Your task to perform on an android device: Open Google Image 0: 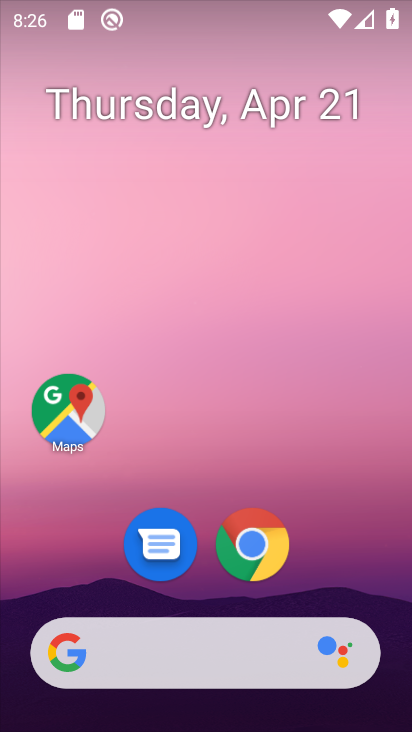
Step 0: drag from (217, 638) to (217, 153)
Your task to perform on an android device: Open Google Image 1: 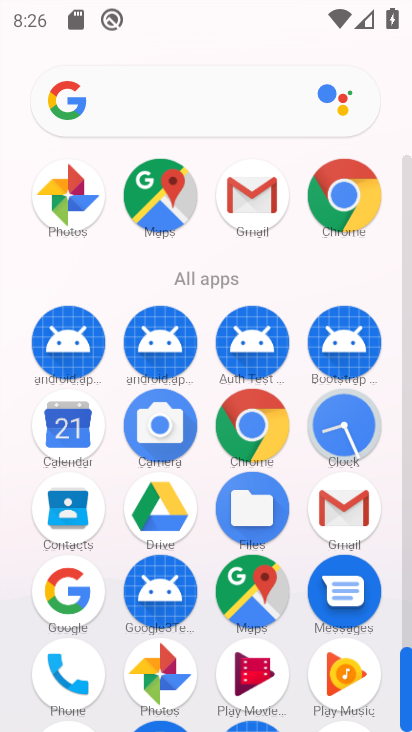
Step 1: click (63, 590)
Your task to perform on an android device: Open Google Image 2: 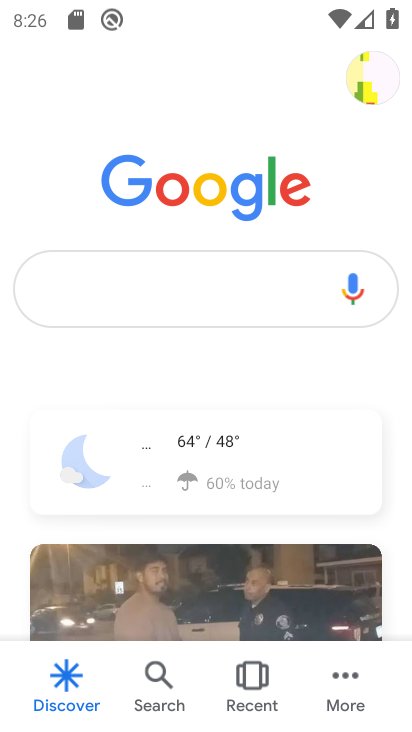
Step 2: task complete